Your task to perform on an android device: Go to privacy settings Image 0: 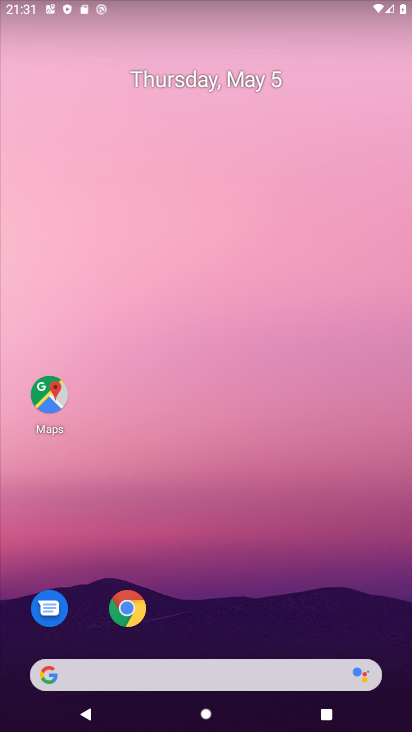
Step 0: drag from (327, 662) to (263, 29)
Your task to perform on an android device: Go to privacy settings Image 1: 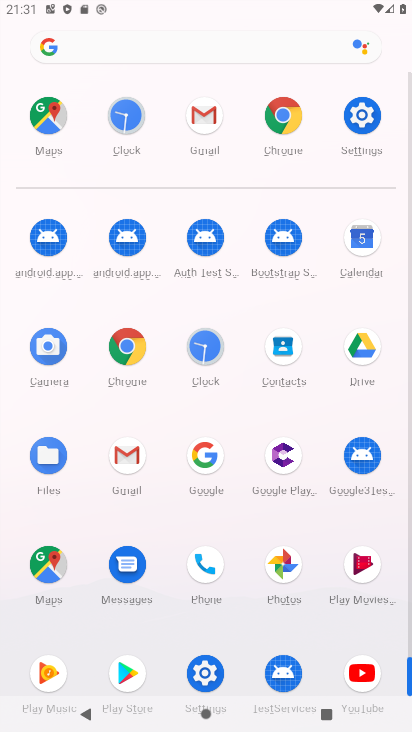
Step 1: click (208, 671)
Your task to perform on an android device: Go to privacy settings Image 2: 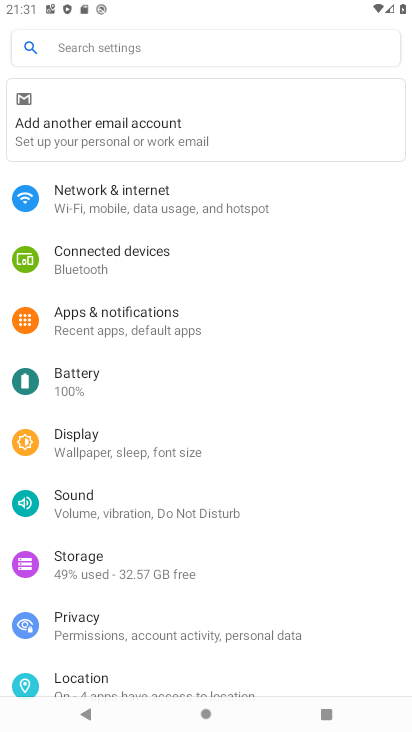
Step 2: click (121, 634)
Your task to perform on an android device: Go to privacy settings Image 3: 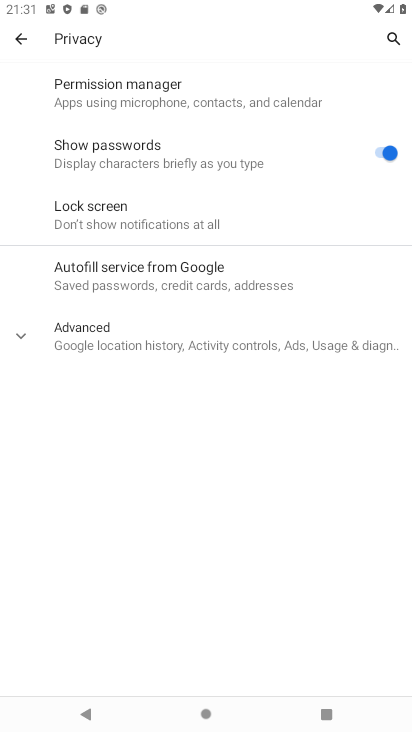
Step 3: task complete